Your task to perform on an android device: turn off airplane mode Image 0: 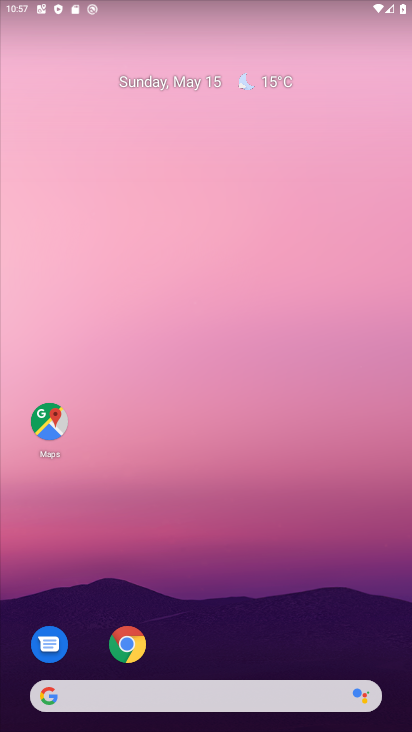
Step 0: drag from (337, 5) to (337, 561)
Your task to perform on an android device: turn off airplane mode Image 1: 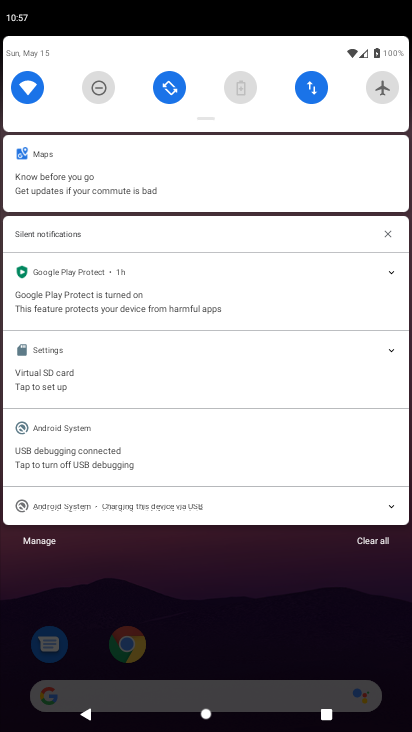
Step 1: task complete